Your task to perform on an android device: Open accessibility settings Image 0: 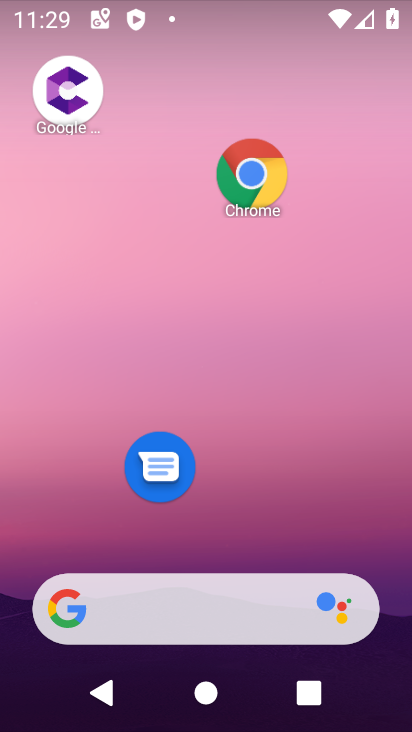
Step 0: drag from (316, 496) to (212, 46)
Your task to perform on an android device: Open accessibility settings Image 1: 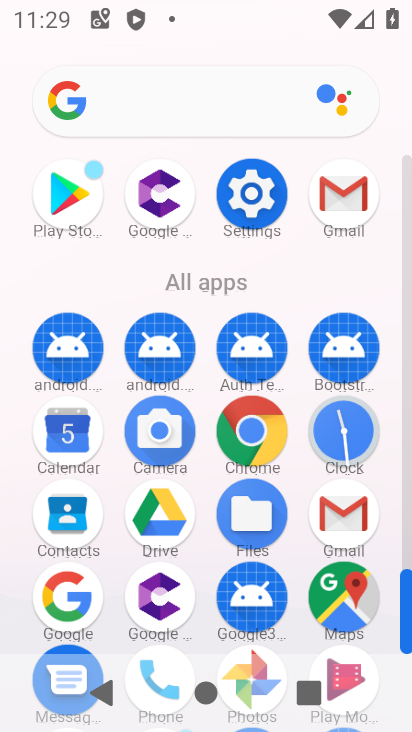
Step 1: click (252, 184)
Your task to perform on an android device: Open accessibility settings Image 2: 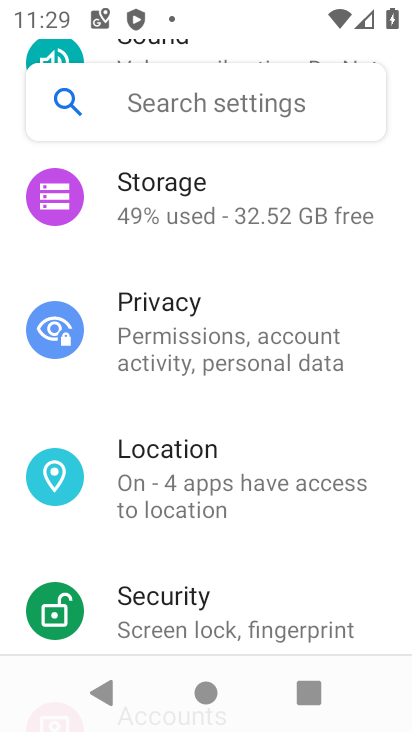
Step 2: drag from (218, 450) to (217, 147)
Your task to perform on an android device: Open accessibility settings Image 3: 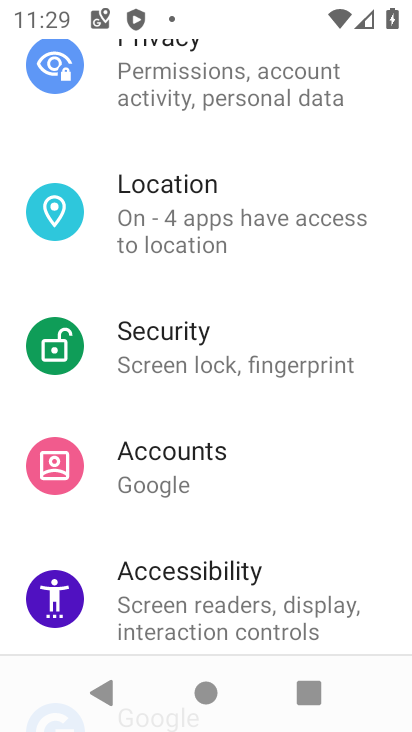
Step 3: click (197, 620)
Your task to perform on an android device: Open accessibility settings Image 4: 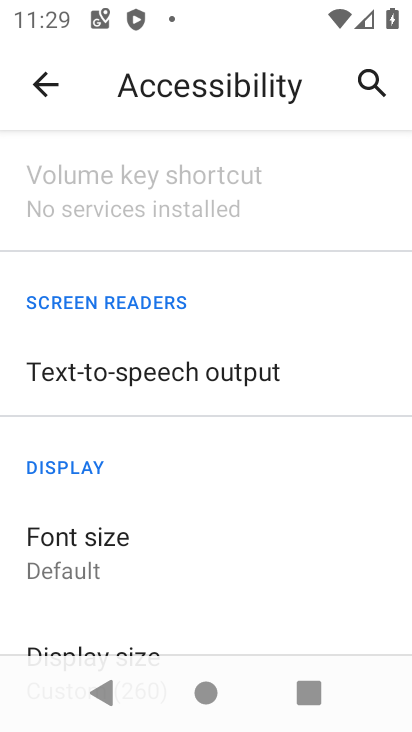
Step 4: task complete